Your task to perform on an android device: Go to ESPN.com Image 0: 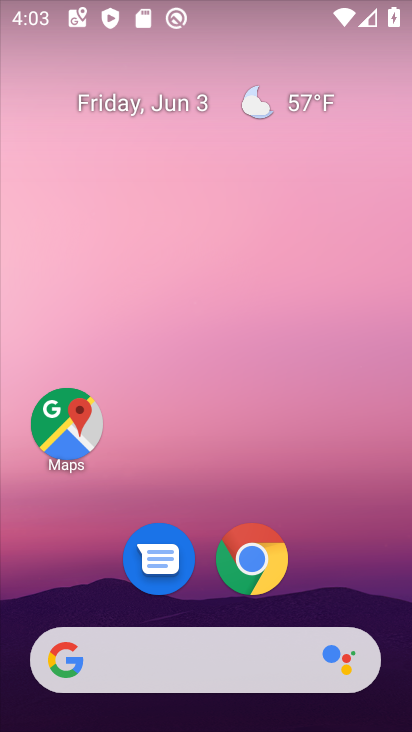
Step 0: click (246, 565)
Your task to perform on an android device: Go to ESPN.com Image 1: 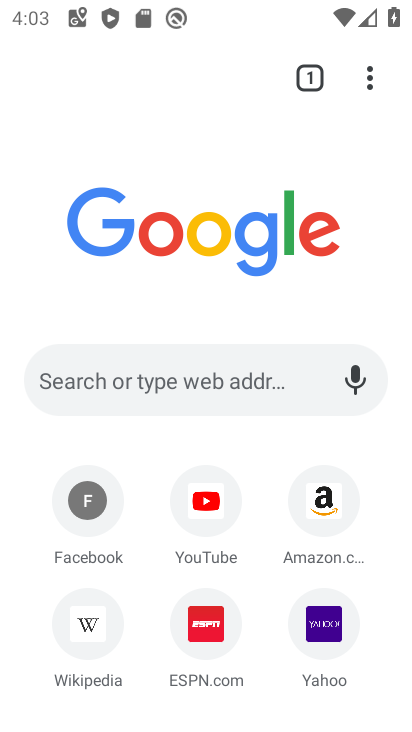
Step 1: click (114, 386)
Your task to perform on an android device: Go to ESPN.com Image 2: 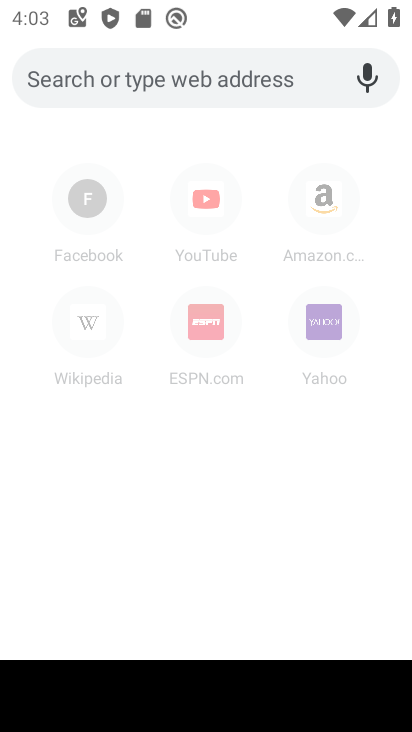
Step 2: type "ESPN.com"
Your task to perform on an android device: Go to ESPN.com Image 3: 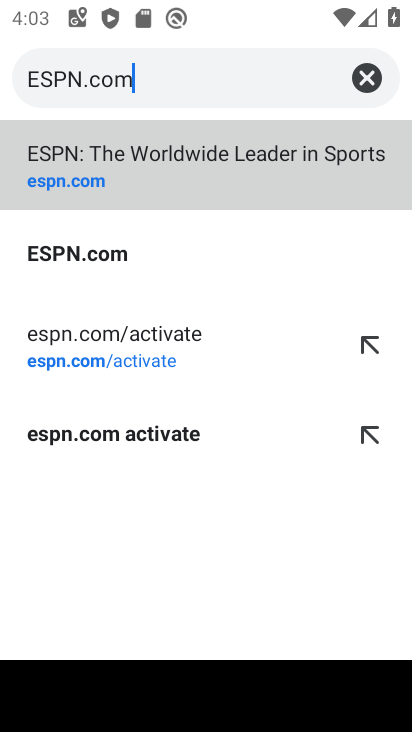
Step 3: click (94, 172)
Your task to perform on an android device: Go to ESPN.com Image 4: 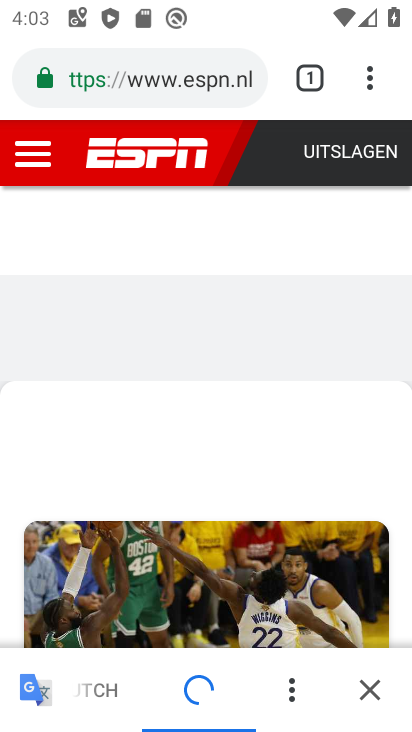
Step 4: task complete